Your task to perform on an android device: create a new album in the google photos Image 0: 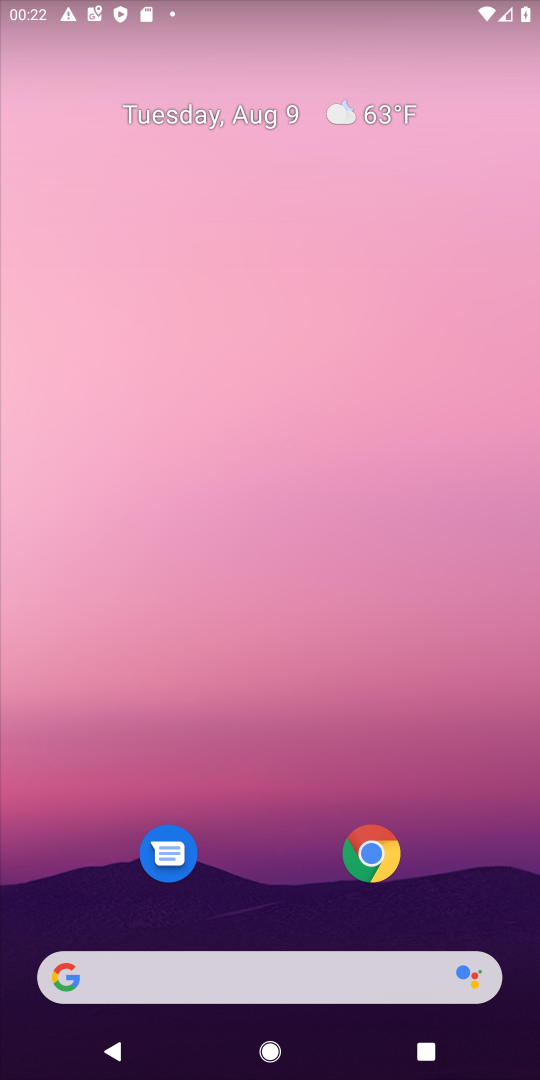
Step 0: drag from (263, 812) to (263, 185)
Your task to perform on an android device: create a new album in the google photos Image 1: 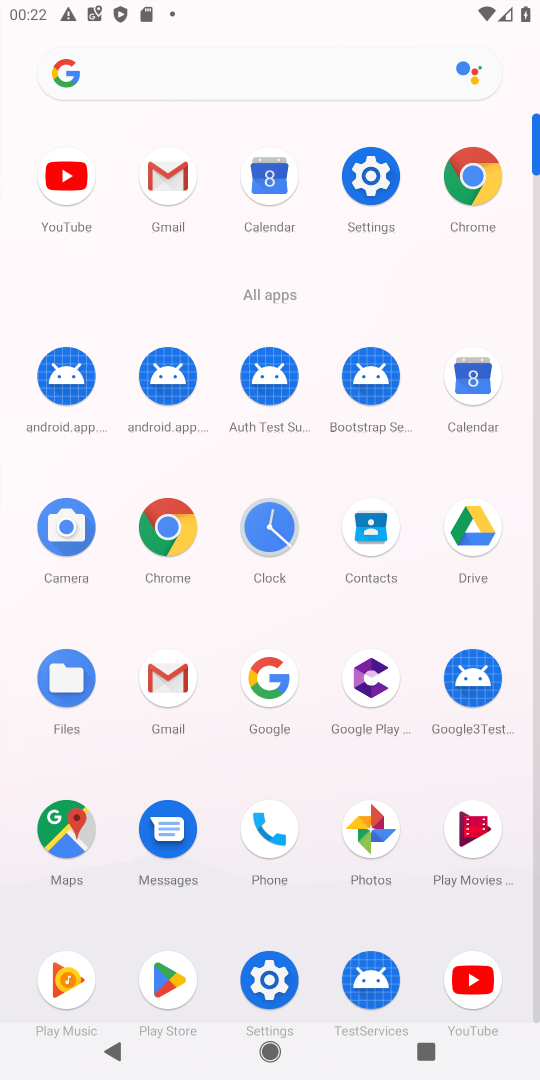
Step 1: click (381, 823)
Your task to perform on an android device: create a new album in the google photos Image 2: 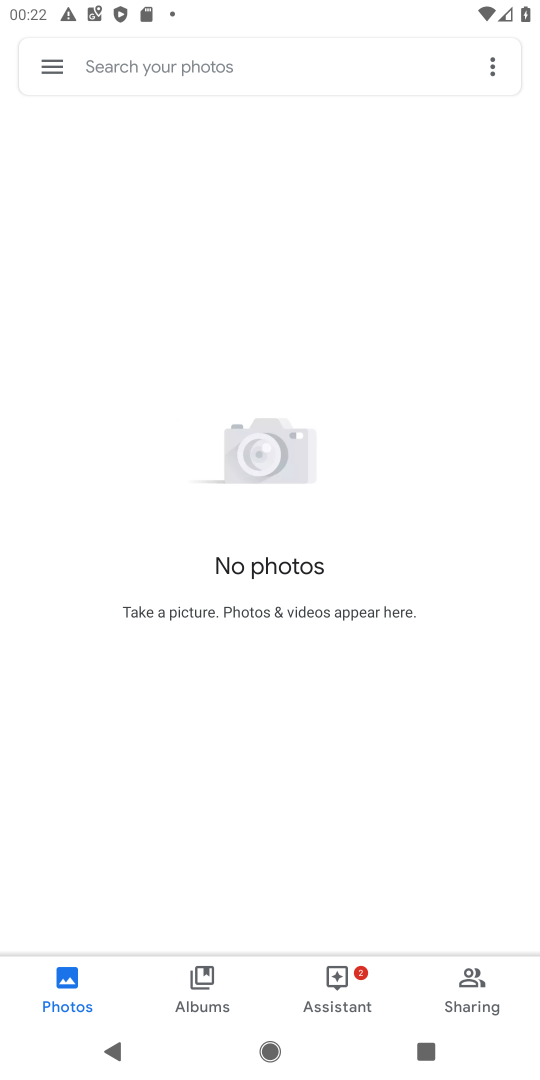
Step 2: click (214, 979)
Your task to perform on an android device: create a new album in the google photos Image 3: 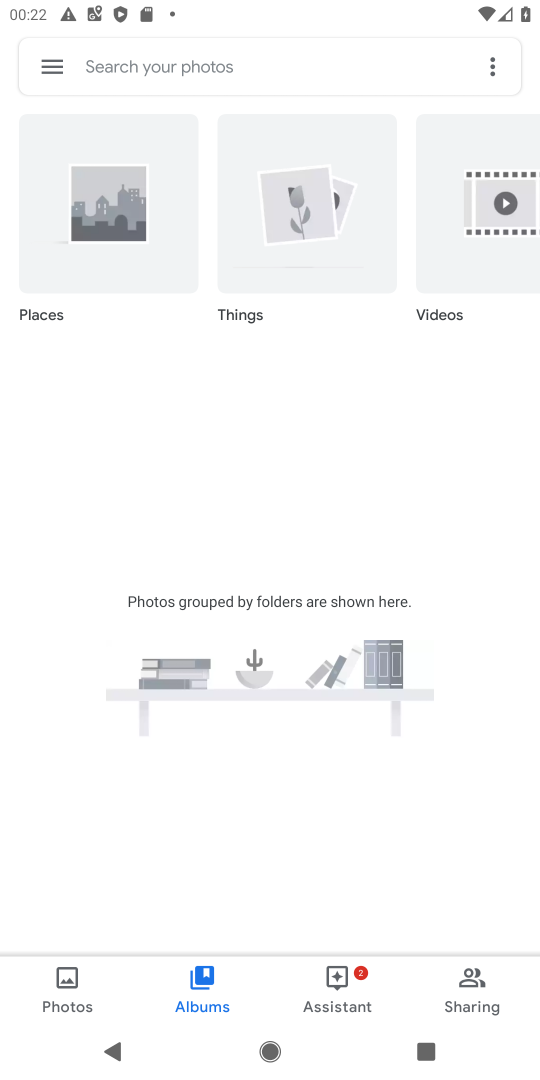
Step 3: click (495, 75)
Your task to perform on an android device: create a new album in the google photos Image 4: 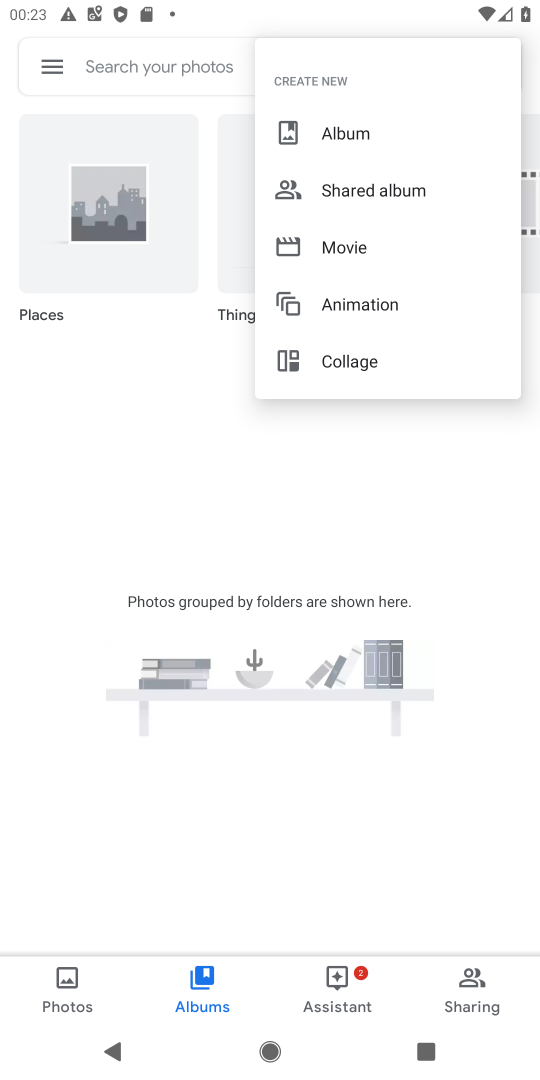
Step 4: click (370, 130)
Your task to perform on an android device: create a new album in the google photos Image 5: 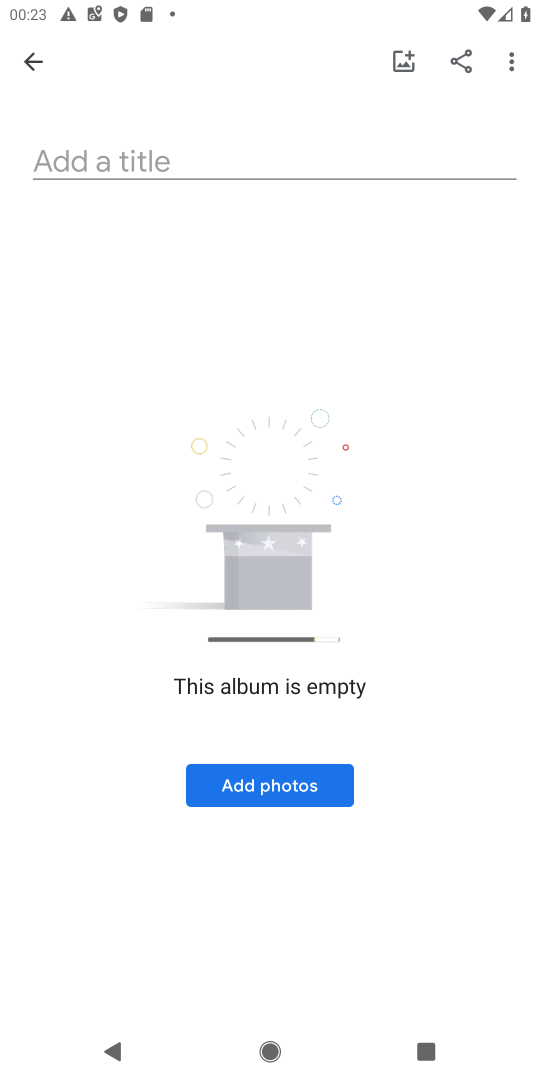
Step 5: click (256, 780)
Your task to perform on an android device: create a new album in the google photos Image 6: 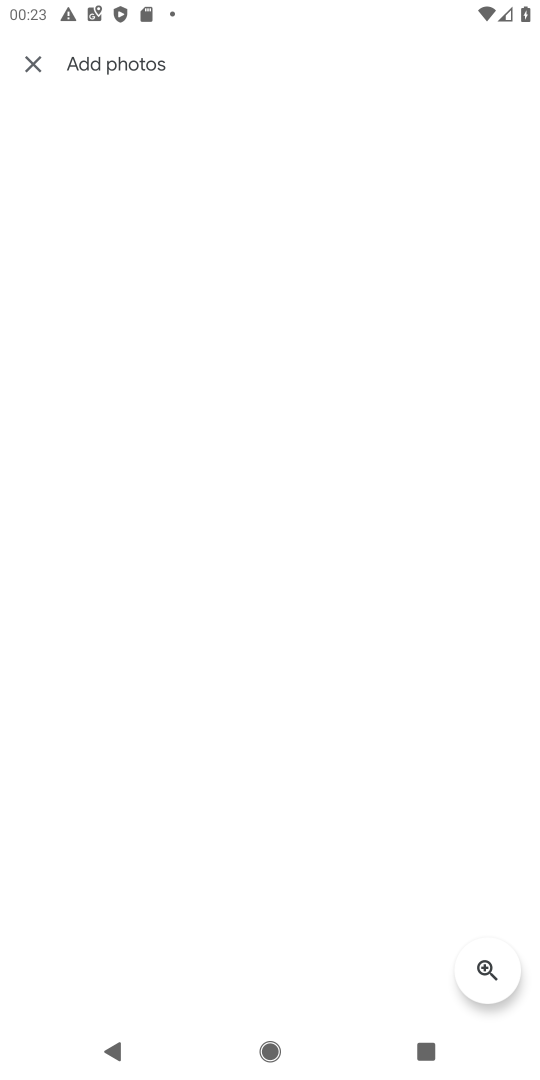
Step 6: task complete